Your task to perform on an android device: Open Yahoo.com Image 0: 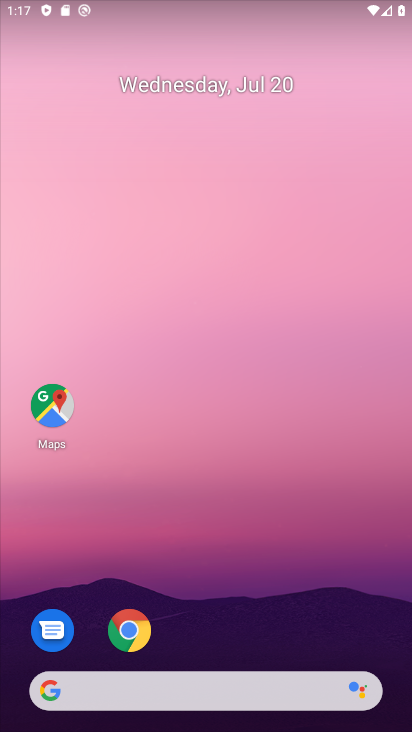
Step 0: drag from (286, 611) to (272, 110)
Your task to perform on an android device: Open Yahoo.com Image 1: 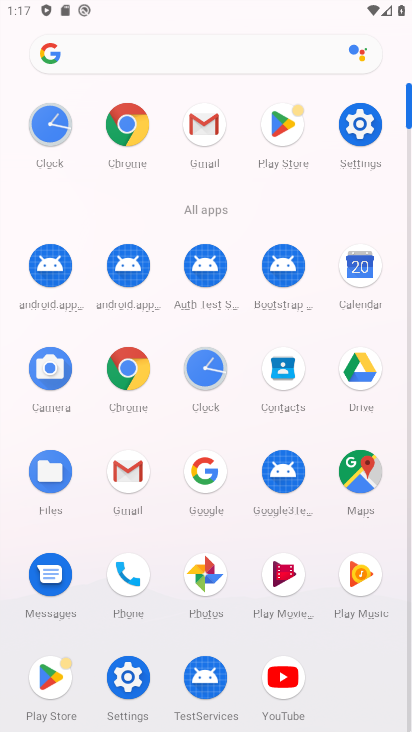
Step 1: click (128, 368)
Your task to perform on an android device: Open Yahoo.com Image 2: 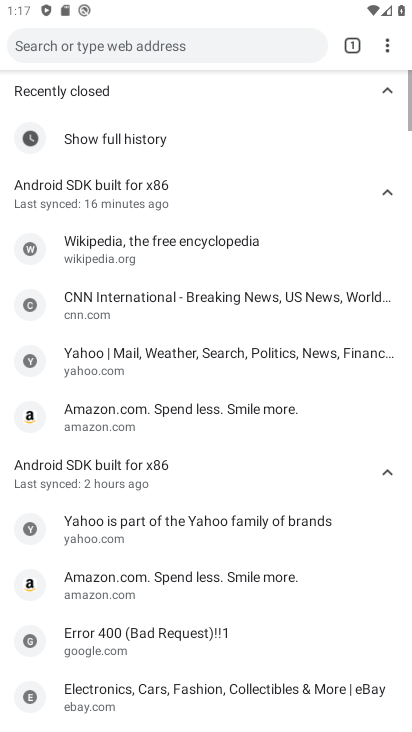
Step 2: click (226, 41)
Your task to perform on an android device: Open Yahoo.com Image 3: 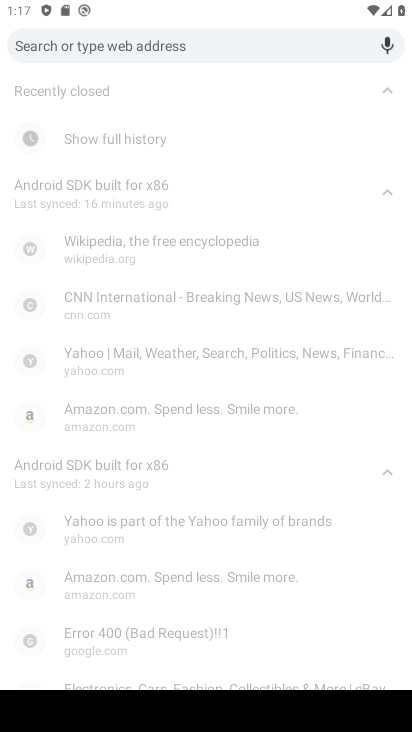
Step 3: type "yahoo.com"
Your task to perform on an android device: Open Yahoo.com Image 4: 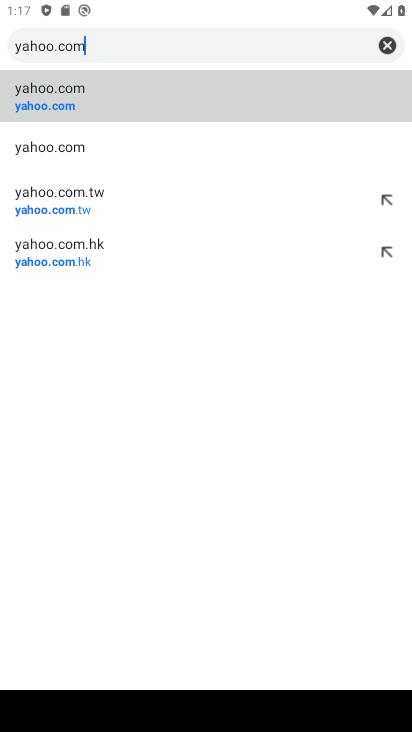
Step 4: click (53, 111)
Your task to perform on an android device: Open Yahoo.com Image 5: 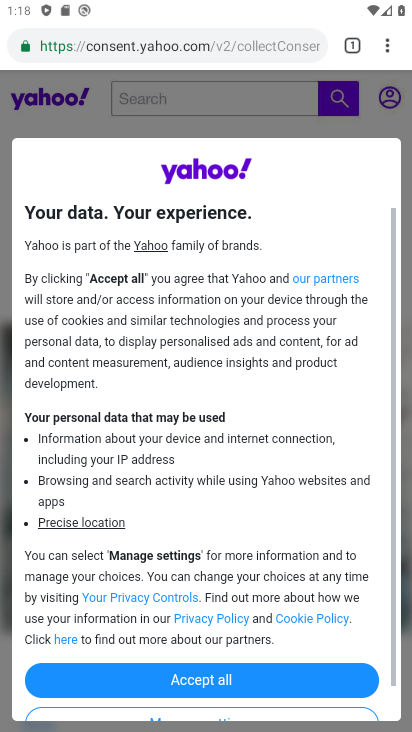
Step 5: task complete